Your task to perform on an android device: empty trash in google photos Image 0: 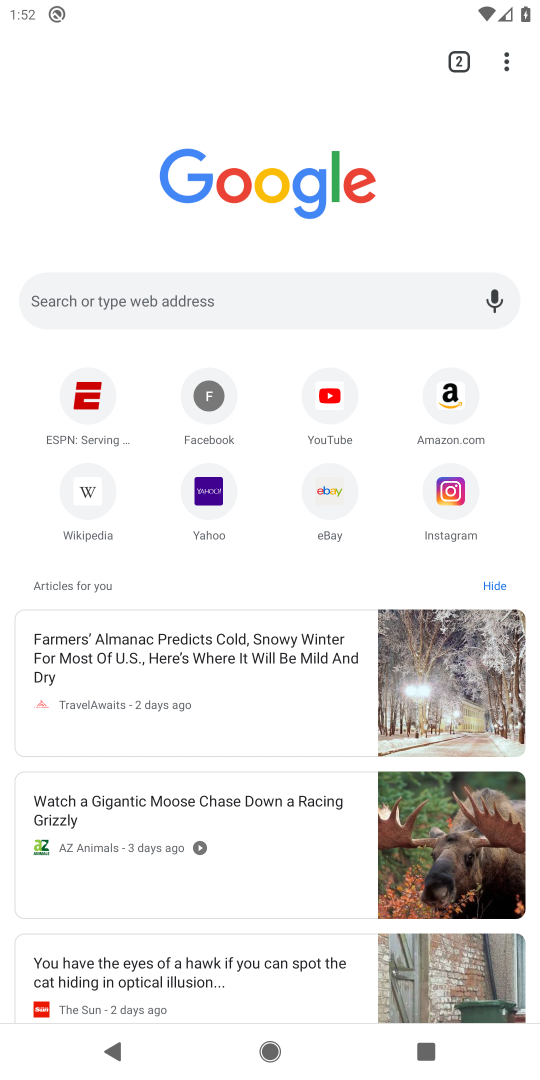
Step 0: press home button
Your task to perform on an android device: empty trash in google photos Image 1: 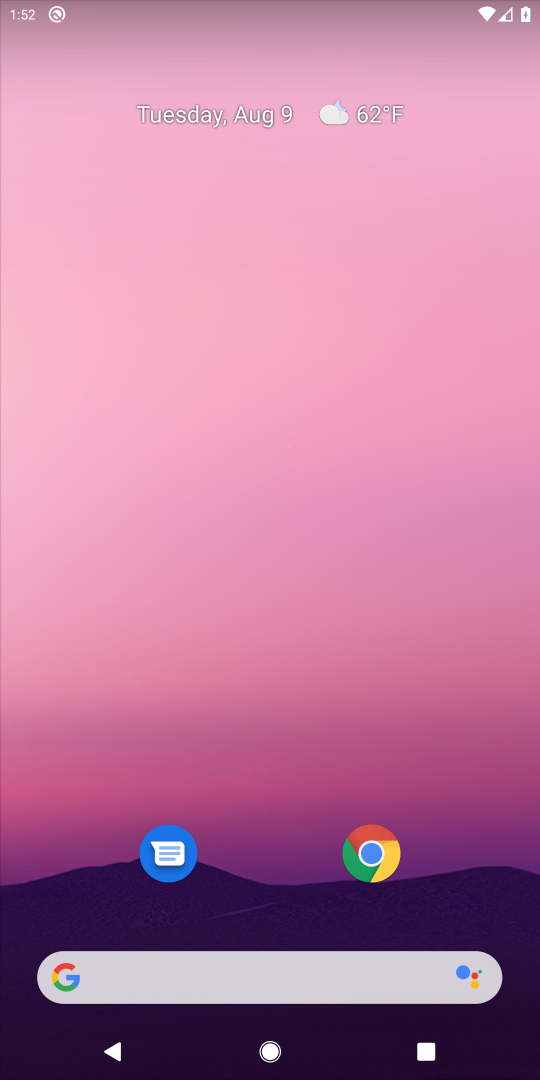
Step 1: drag from (259, 796) to (259, 131)
Your task to perform on an android device: empty trash in google photos Image 2: 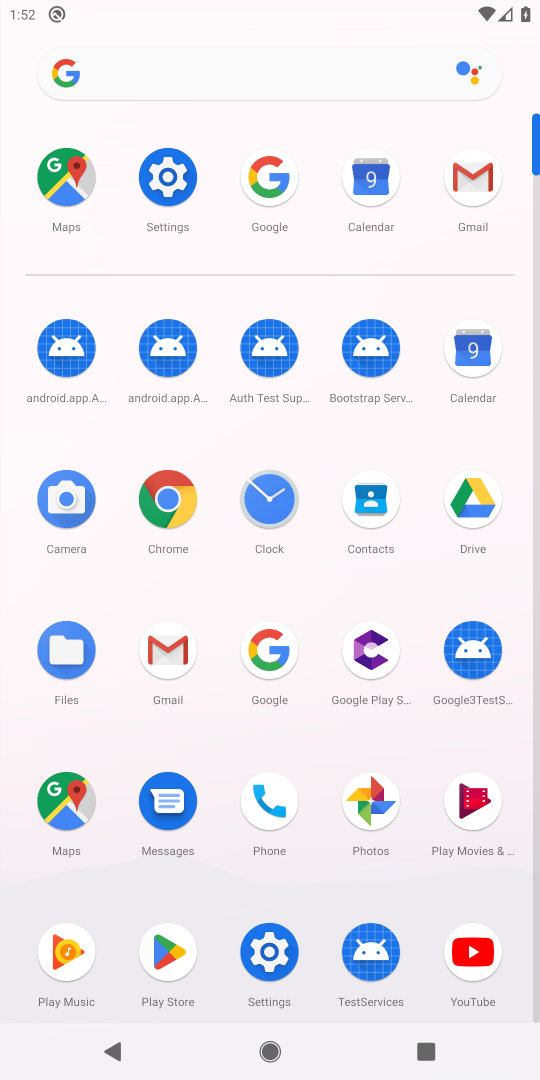
Step 2: click (372, 804)
Your task to perform on an android device: empty trash in google photos Image 3: 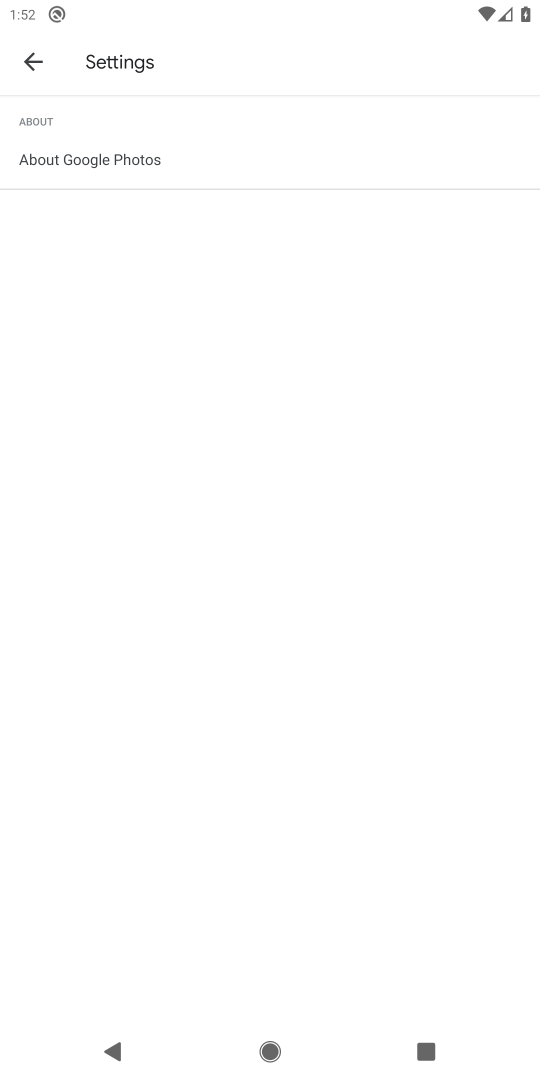
Step 3: click (19, 57)
Your task to perform on an android device: empty trash in google photos Image 4: 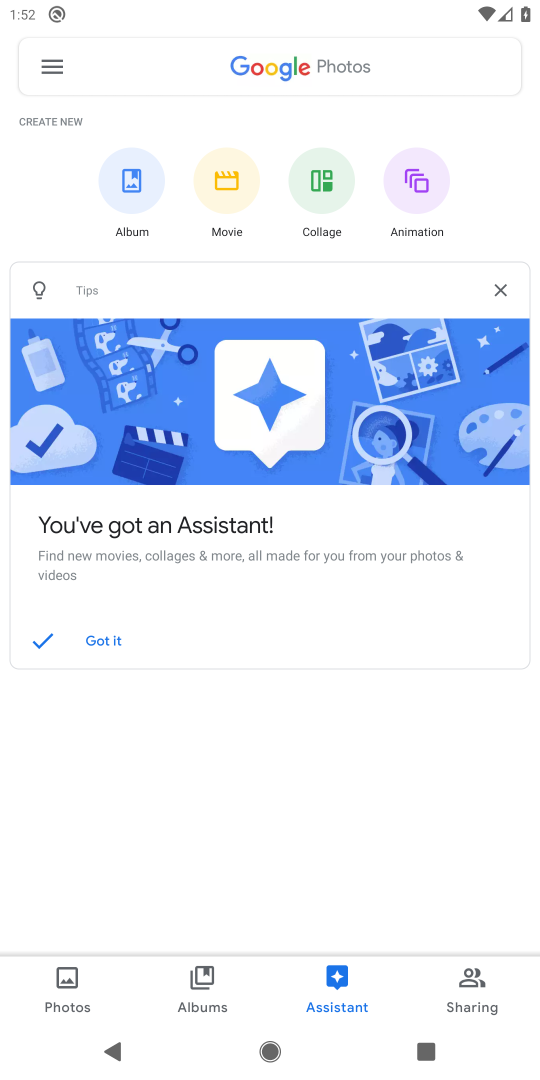
Step 4: click (38, 60)
Your task to perform on an android device: empty trash in google photos Image 5: 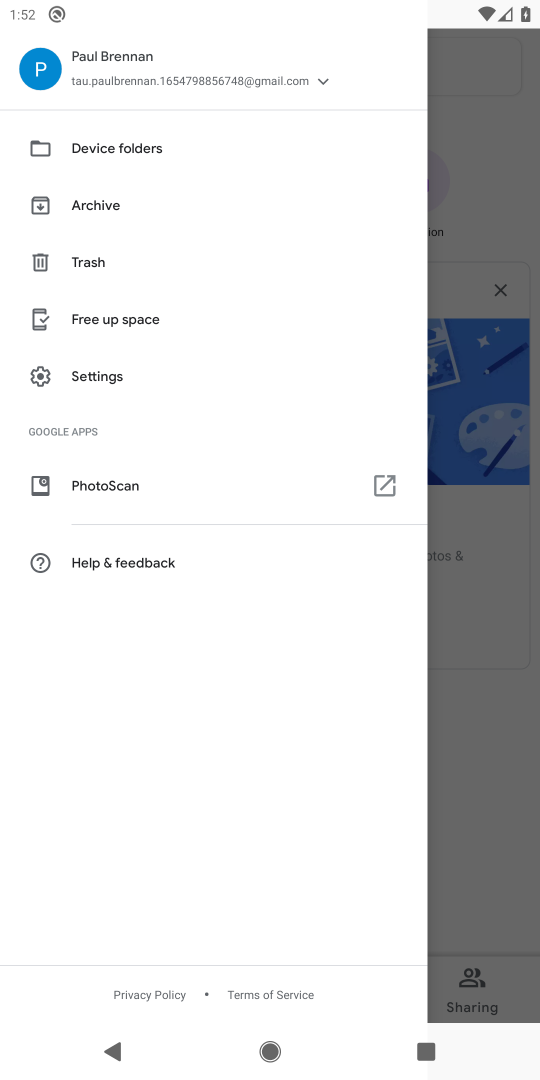
Step 5: click (106, 261)
Your task to perform on an android device: empty trash in google photos Image 6: 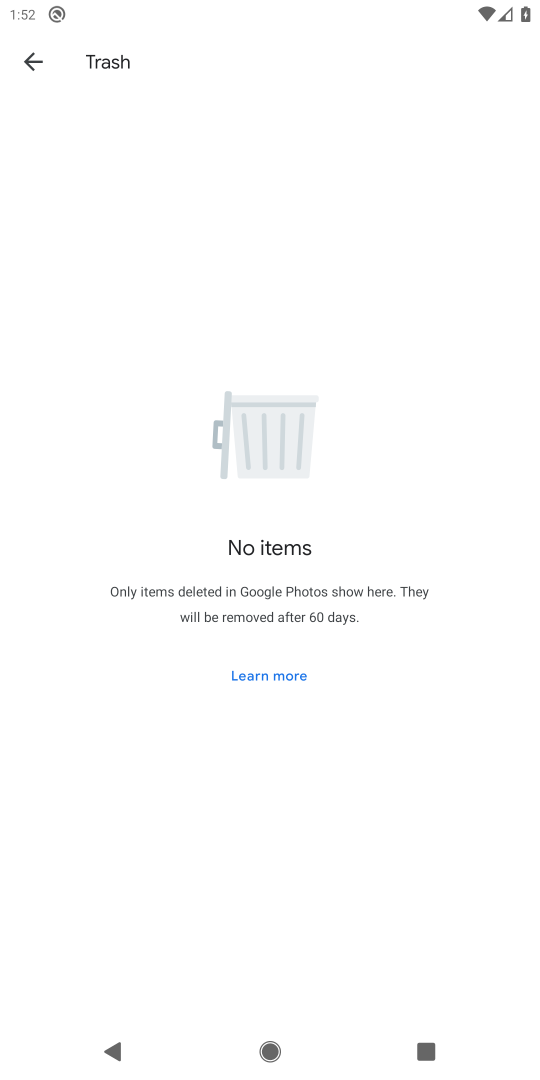
Step 6: task complete